Your task to perform on an android device: Go to accessibility settings Image 0: 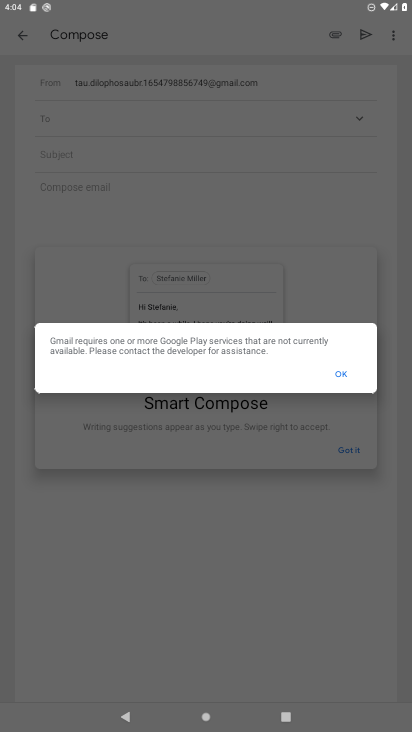
Step 0: press home button
Your task to perform on an android device: Go to accessibility settings Image 1: 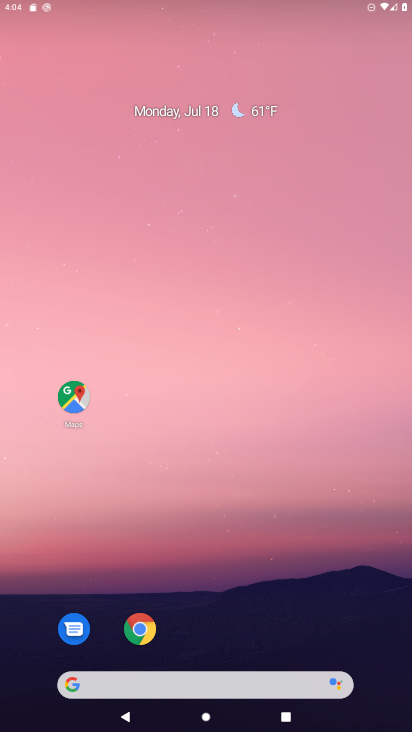
Step 1: drag from (179, 645) to (237, 259)
Your task to perform on an android device: Go to accessibility settings Image 2: 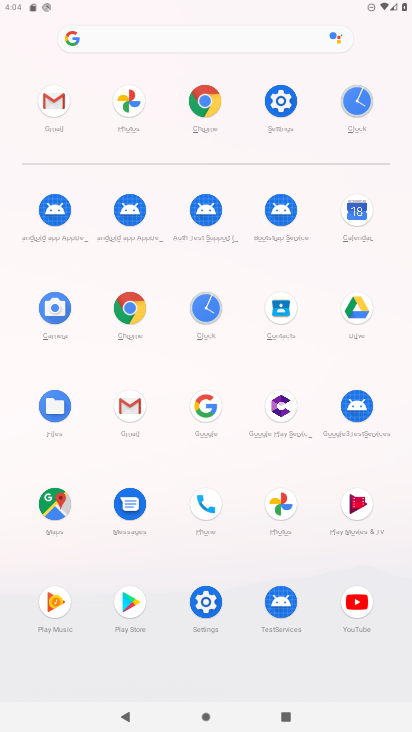
Step 2: click (277, 106)
Your task to perform on an android device: Go to accessibility settings Image 3: 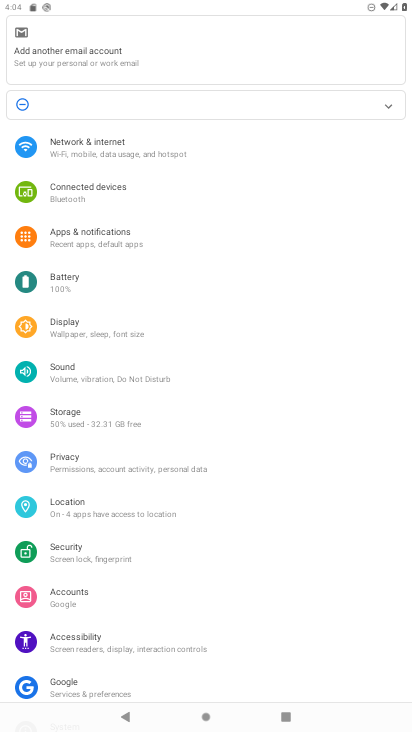
Step 3: click (68, 640)
Your task to perform on an android device: Go to accessibility settings Image 4: 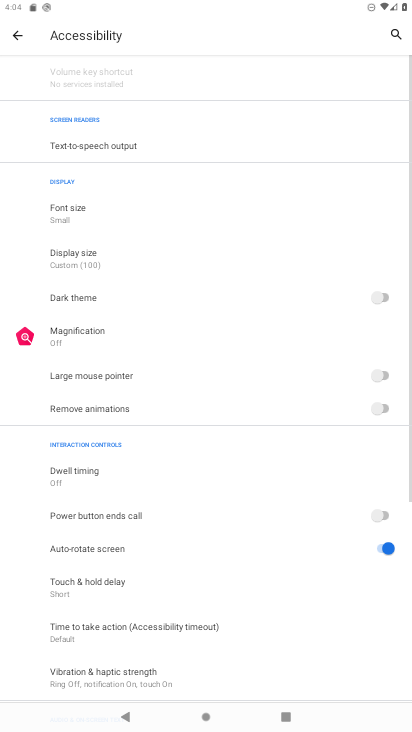
Step 4: task complete